Your task to perform on an android device: delete location history Image 0: 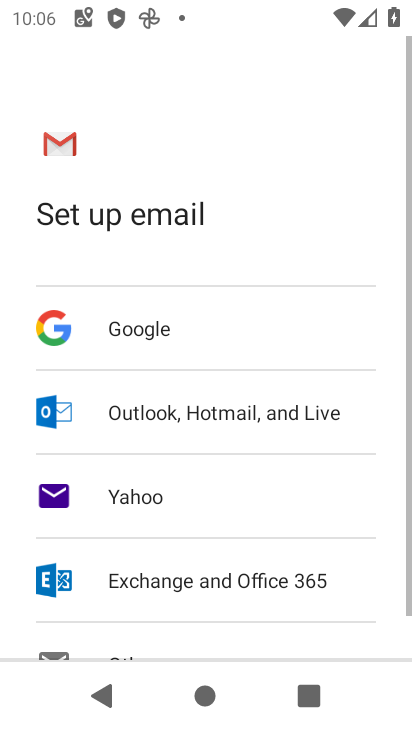
Step 0: press home button
Your task to perform on an android device: delete location history Image 1: 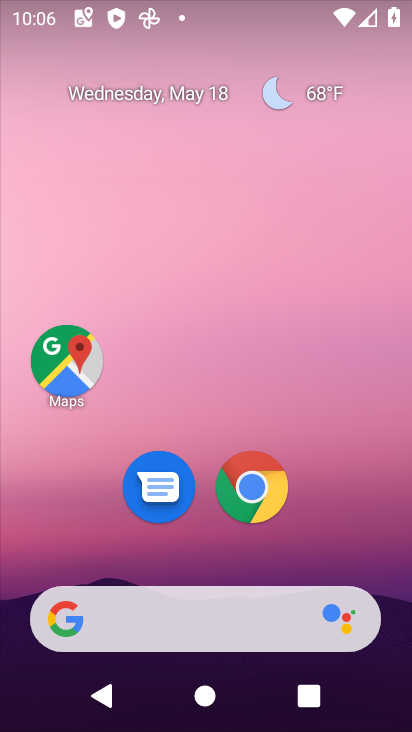
Step 1: drag from (364, 549) to (317, 108)
Your task to perform on an android device: delete location history Image 2: 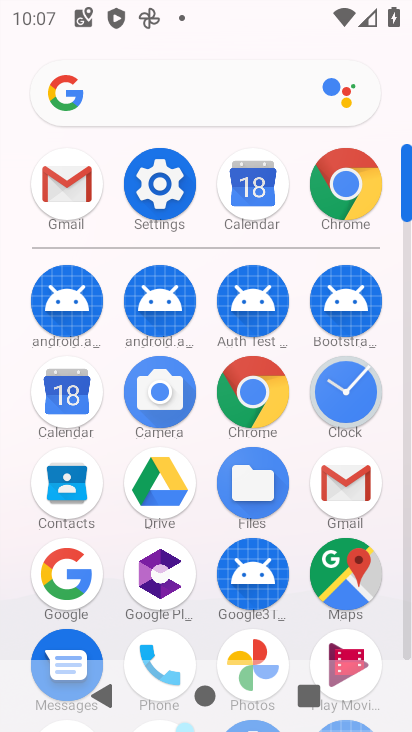
Step 2: click (153, 183)
Your task to perform on an android device: delete location history Image 3: 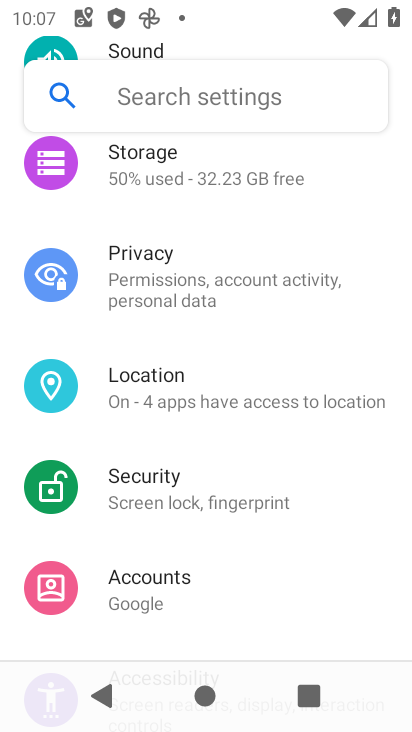
Step 3: click (198, 389)
Your task to perform on an android device: delete location history Image 4: 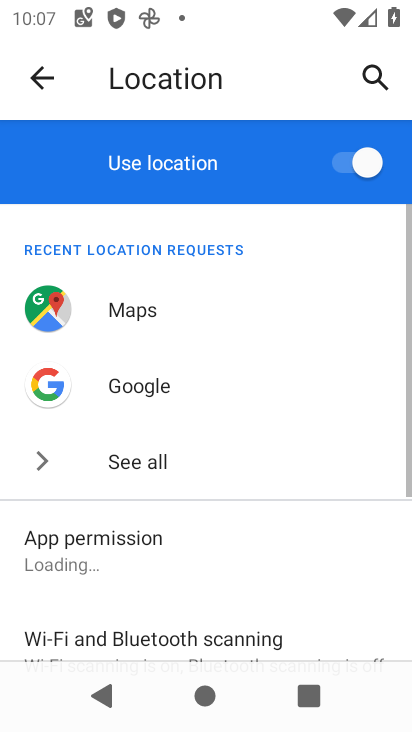
Step 4: drag from (238, 579) to (245, 353)
Your task to perform on an android device: delete location history Image 5: 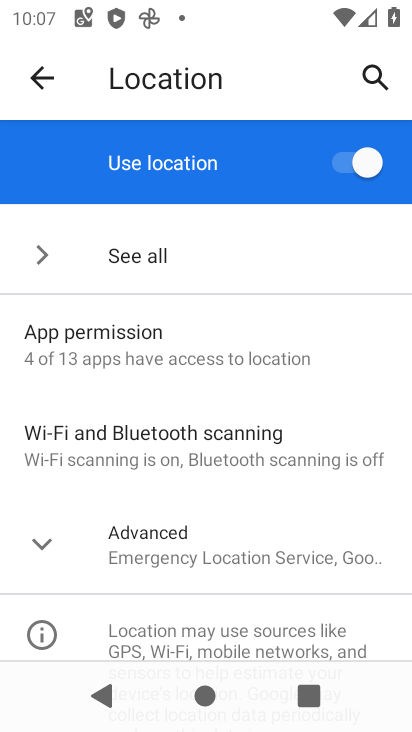
Step 5: click (258, 543)
Your task to perform on an android device: delete location history Image 6: 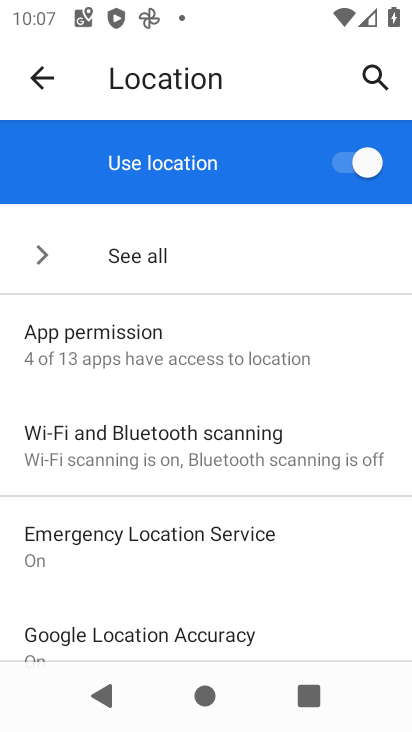
Step 6: drag from (147, 576) to (206, 361)
Your task to perform on an android device: delete location history Image 7: 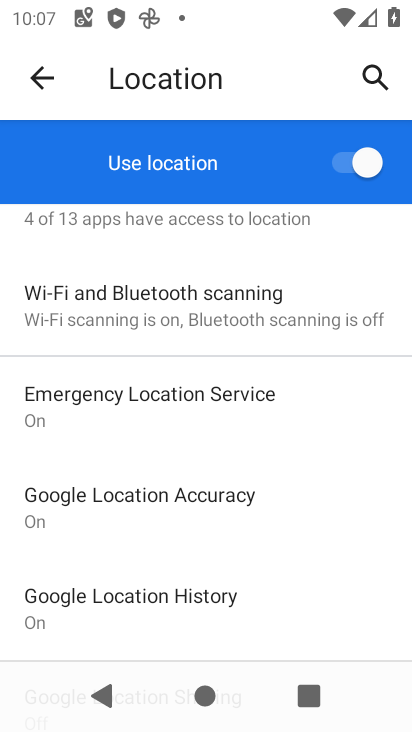
Step 7: drag from (311, 569) to (322, 397)
Your task to perform on an android device: delete location history Image 8: 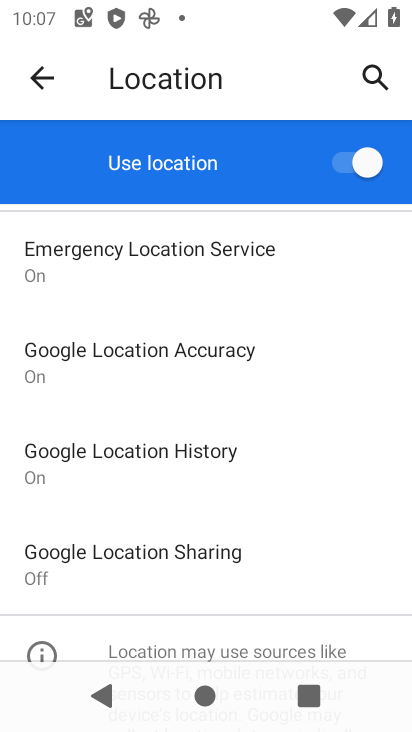
Step 8: click (203, 452)
Your task to perform on an android device: delete location history Image 9: 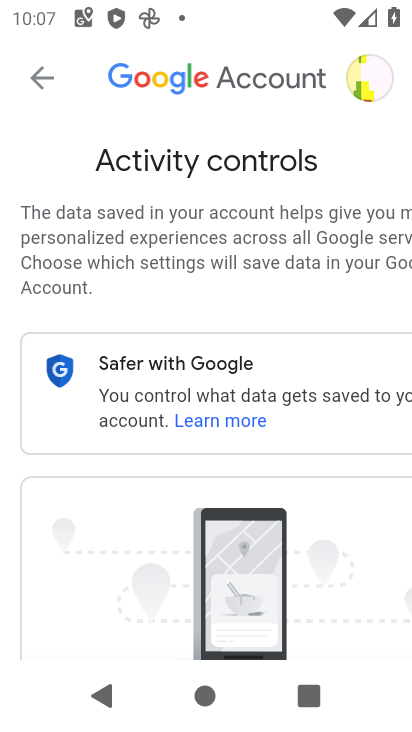
Step 9: drag from (150, 626) to (152, 292)
Your task to perform on an android device: delete location history Image 10: 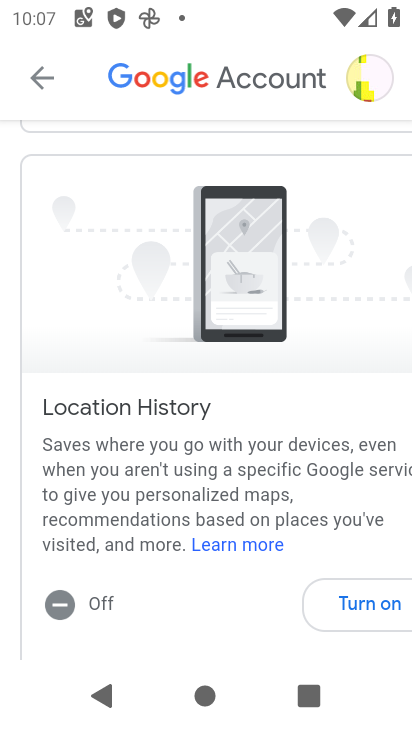
Step 10: drag from (222, 620) to (213, 376)
Your task to perform on an android device: delete location history Image 11: 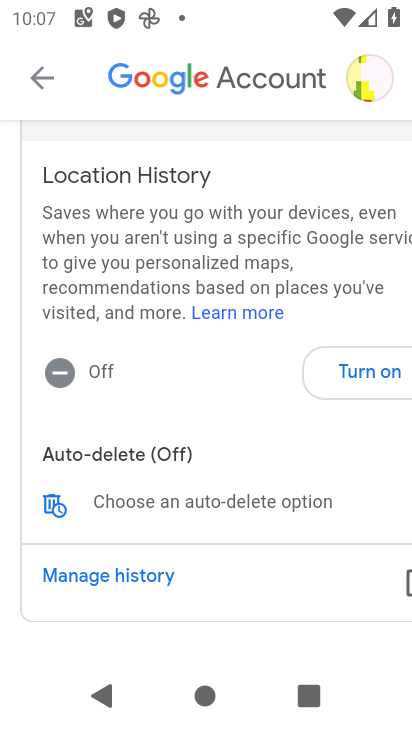
Step 11: click (153, 567)
Your task to perform on an android device: delete location history Image 12: 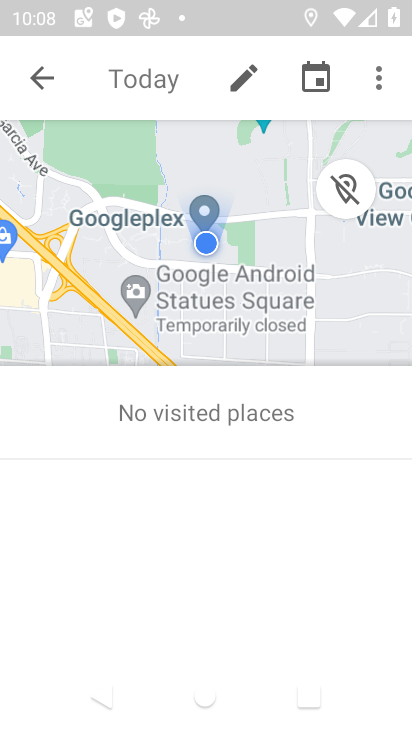
Step 12: drag from (382, 86) to (284, 515)
Your task to perform on an android device: delete location history Image 13: 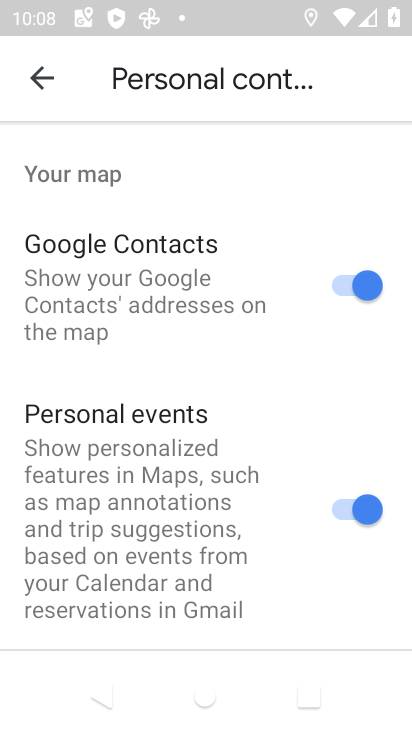
Step 13: drag from (274, 614) to (273, 204)
Your task to perform on an android device: delete location history Image 14: 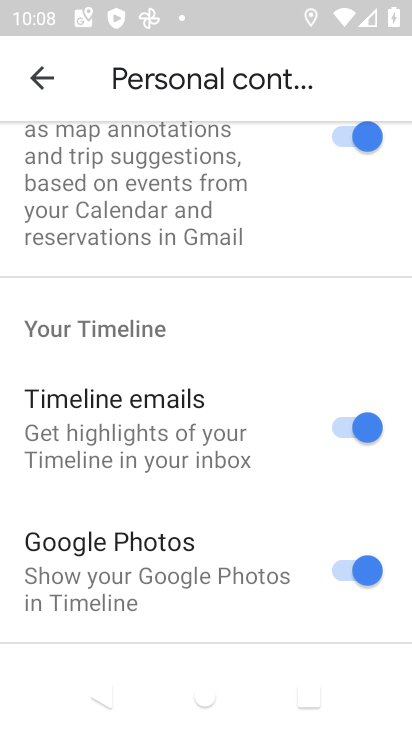
Step 14: drag from (270, 613) to (236, 239)
Your task to perform on an android device: delete location history Image 15: 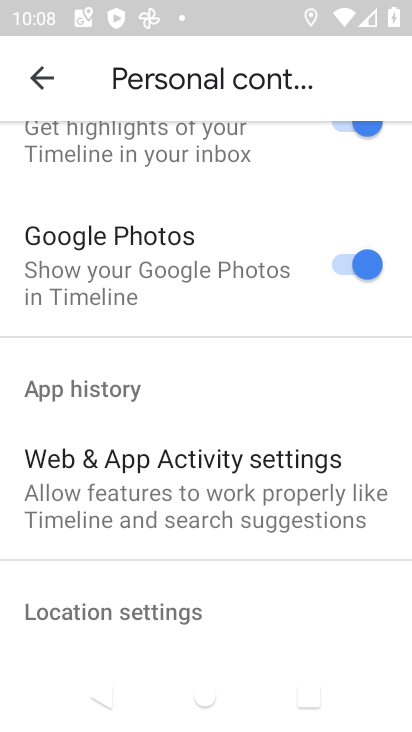
Step 15: drag from (256, 592) to (243, 219)
Your task to perform on an android device: delete location history Image 16: 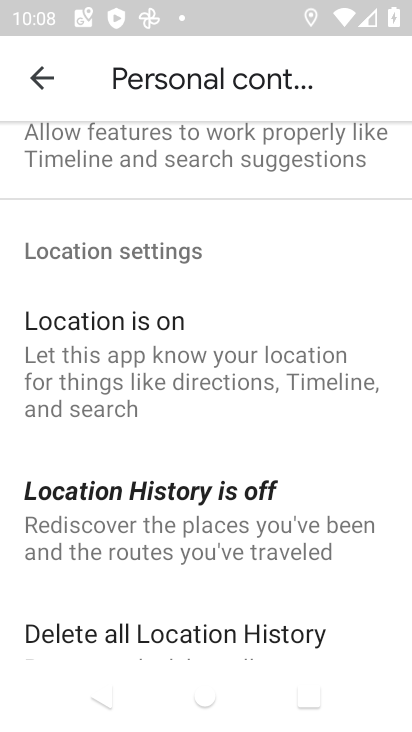
Step 16: drag from (274, 557) to (225, 265)
Your task to perform on an android device: delete location history Image 17: 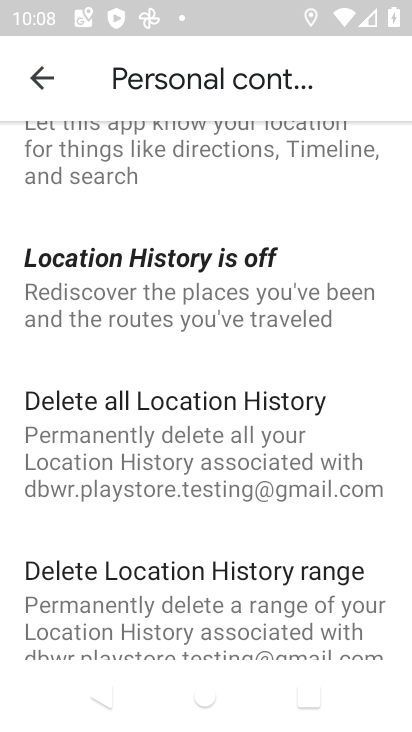
Step 17: click (259, 462)
Your task to perform on an android device: delete location history Image 18: 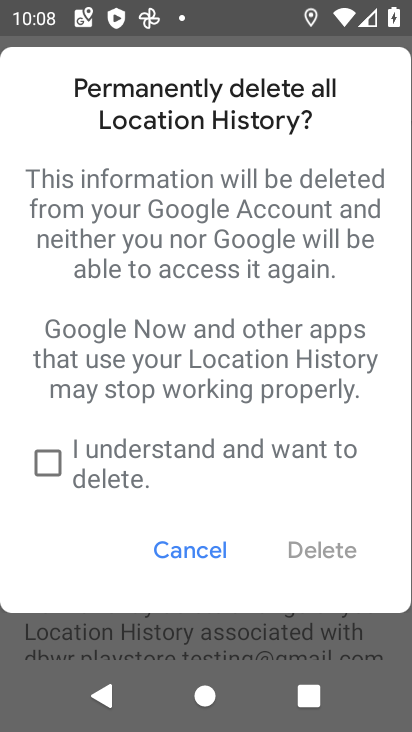
Step 18: click (46, 459)
Your task to perform on an android device: delete location history Image 19: 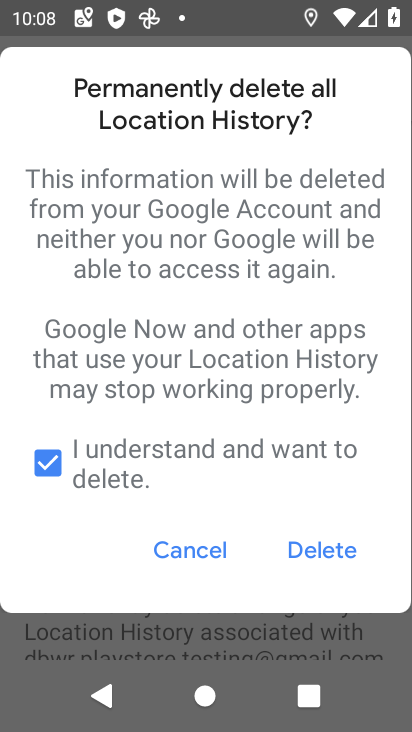
Step 19: click (304, 551)
Your task to perform on an android device: delete location history Image 20: 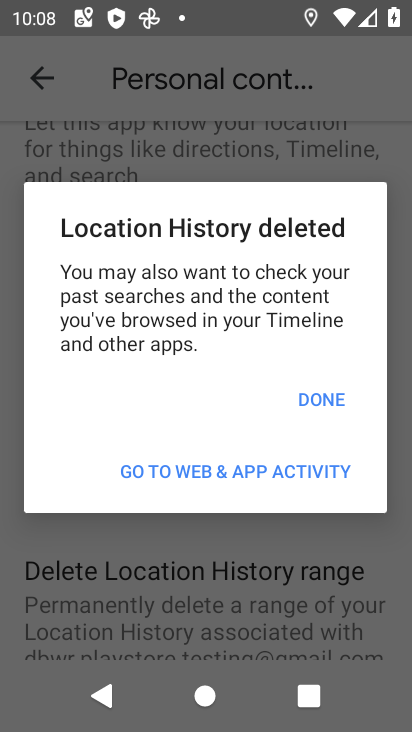
Step 20: click (320, 406)
Your task to perform on an android device: delete location history Image 21: 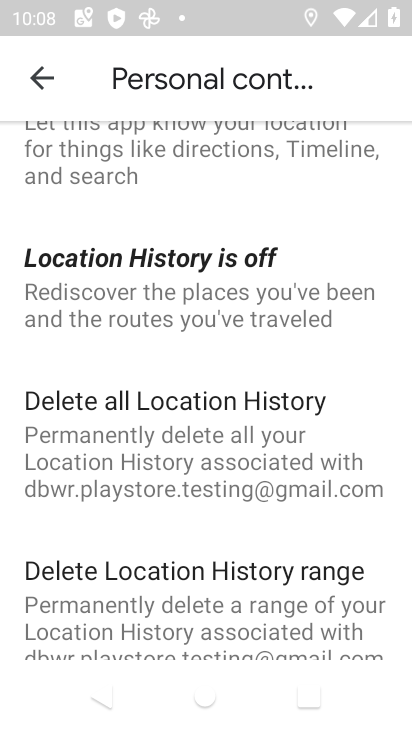
Step 21: task complete